Your task to perform on an android device: What's the weather going to be this weekend? Image 0: 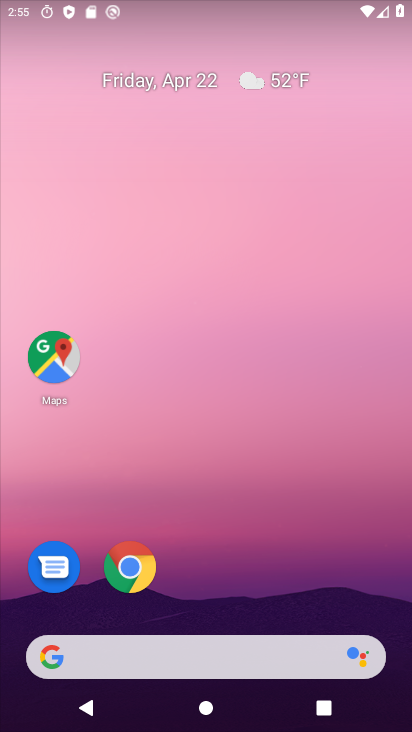
Step 0: drag from (254, 299) to (236, 62)
Your task to perform on an android device: What's the weather going to be this weekend? Image 1: 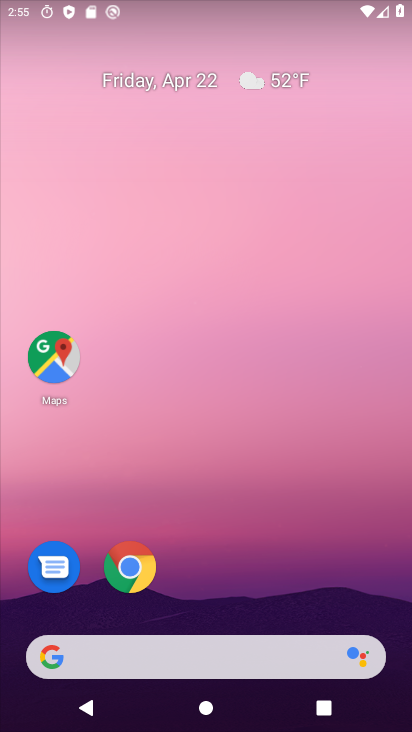
Step 1: click (271, 68)
Your task to perform on an android device: What's the weather going to be this weekend? Image 2: 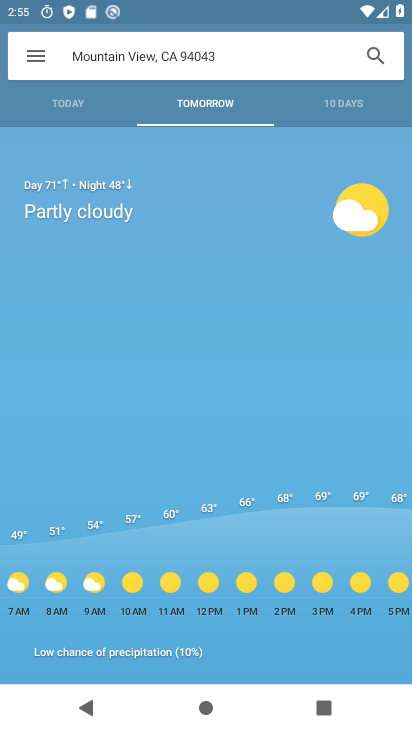
Step 2: click (333, 99)
Your task to perform on an android device: What's the weather going to be this weekend? Image 3: 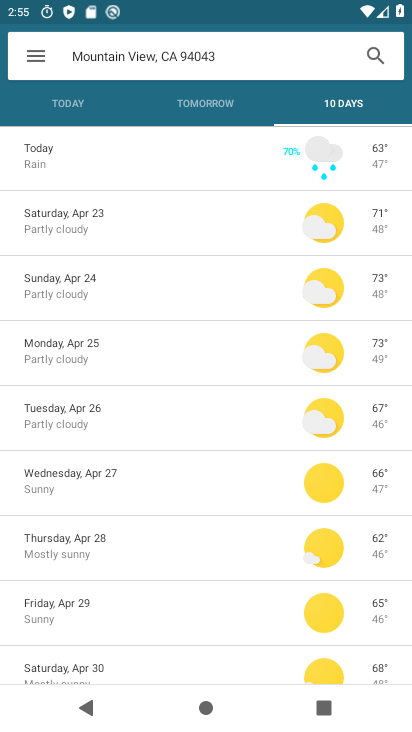
Step 3: task complete